Your task to perform on an android device: Show me the alarms in the clock app Image 0: 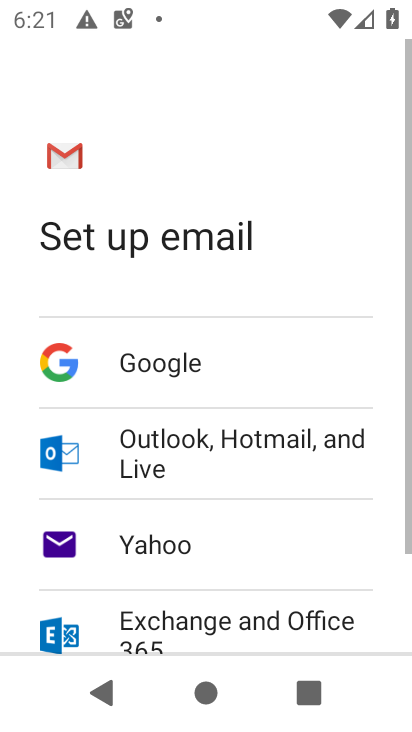
Step 0: press home button
Your task to perform on an android device: Show me the alarms in the clock app Image 1: 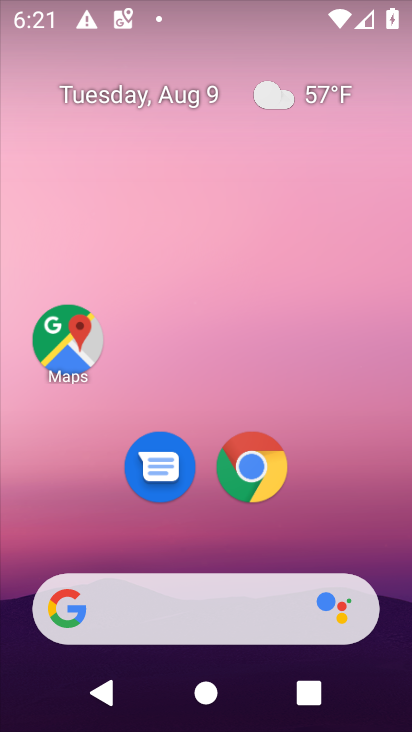
Step 1: drag from (189, 452) to (185, 157)
Your task to perform on an android device: Show me the alarms in the clock app Image 2: 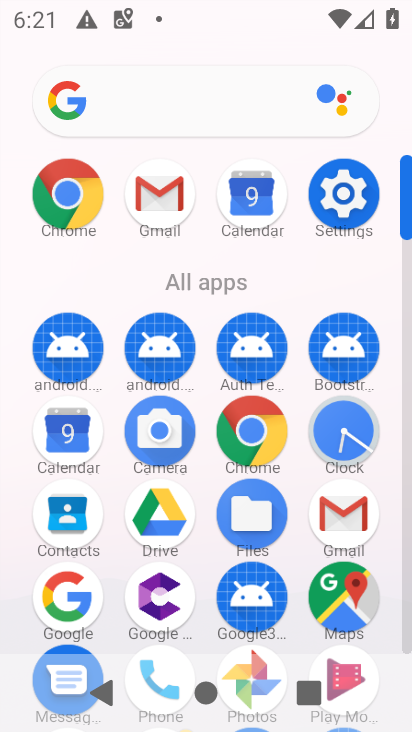
Step 2: click (337, 423)
Your task to perform on an android device: Show me the alarms in the clock app Image 3: 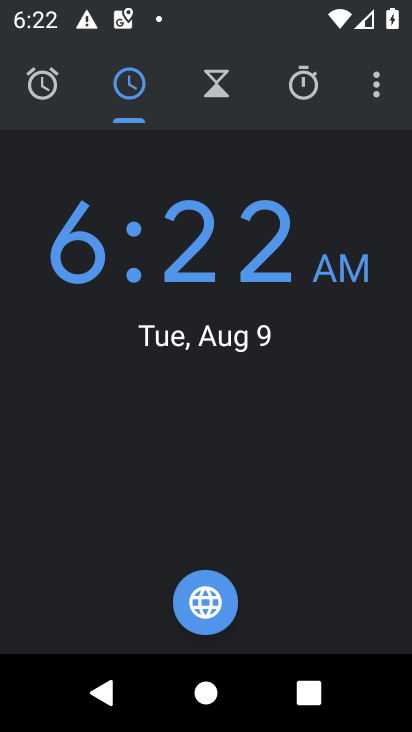
Step 3: click (43, 83)
Your task to perform on an android device: Show me the alarms in the clock app Image 4: 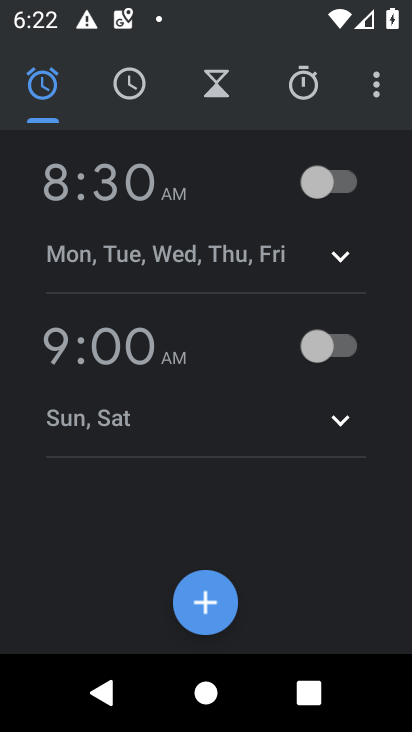
Step 4: task complete